Your task to perform on an android device: Go to Amazon Image 0: 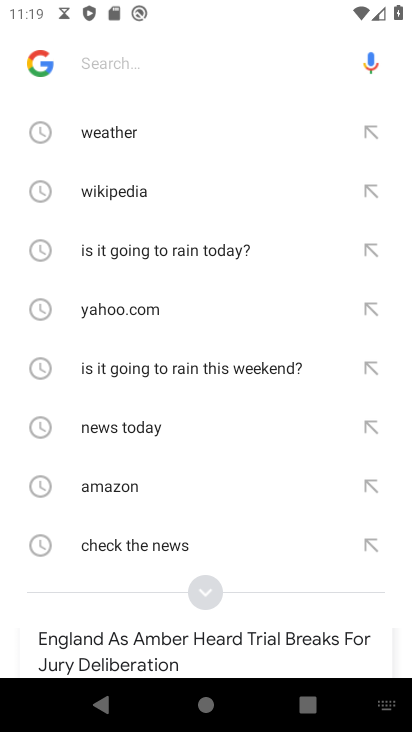
Step 0: press home button
Your task to perform on an android device: Go to Amazon Image 1: 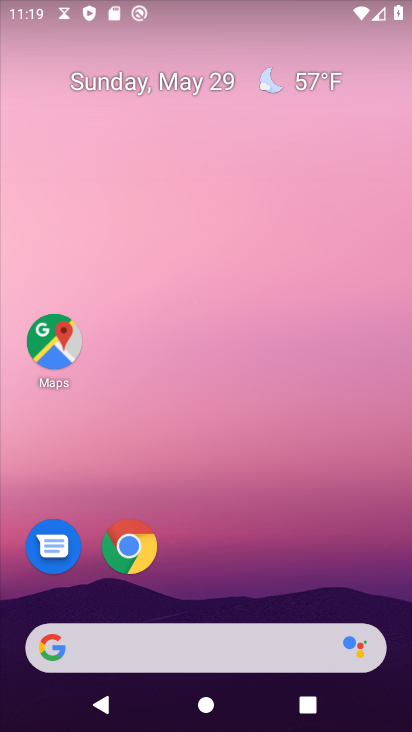
Step 1: click (138, 541)
Your task to perform on an android device: Go to Amazon Image 2: 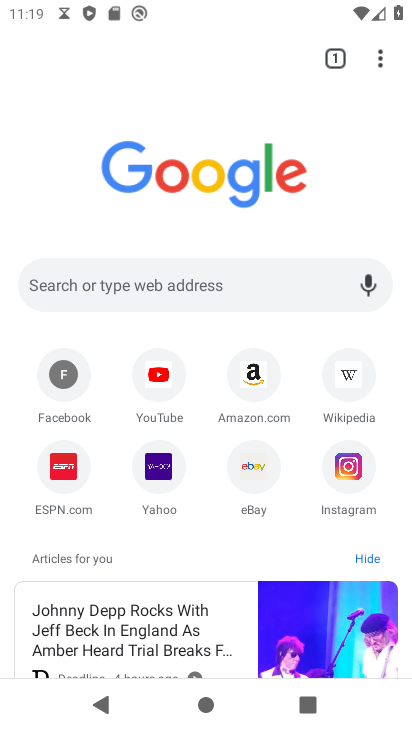
Step 2: click (254, 368)
Your task to perform on an android device: Go to Amazon Image 3: 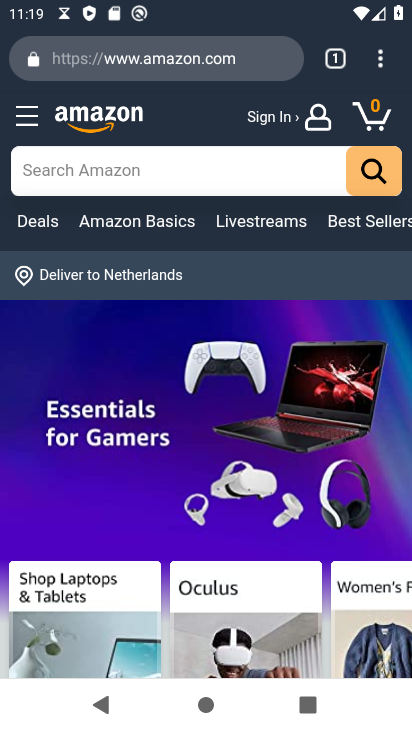
Step 3: task complete